Your task to perform on an android device: What is the recent news? Image 0: 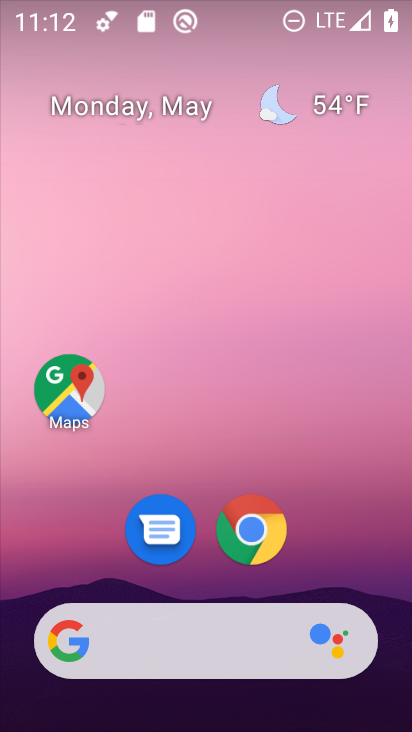
Step 0: drag from (18, 248) to (410, 146)
Your task to perform on an android device: What is the recent news? Image 1: 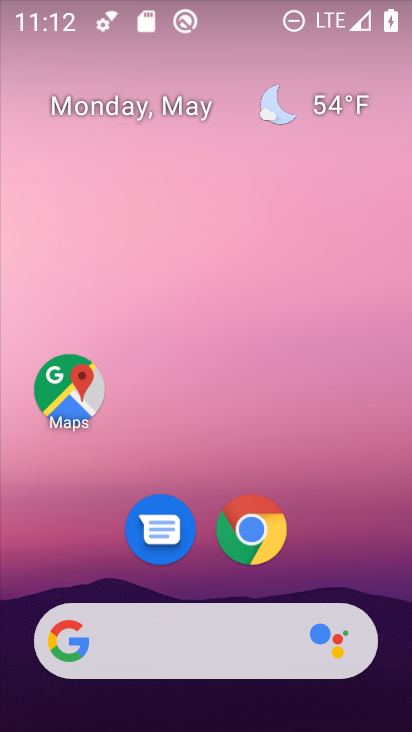
Step 1: task complete